Your task to perform on an android device: open device folders in google photos Image 0: 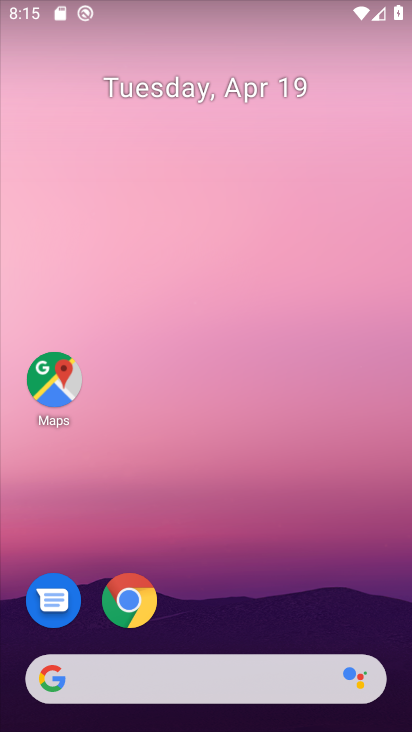
Step 0: drag from (357, 607) to (339, 119)
Your task to perform on an android device: open device folders in google photos Image 1: 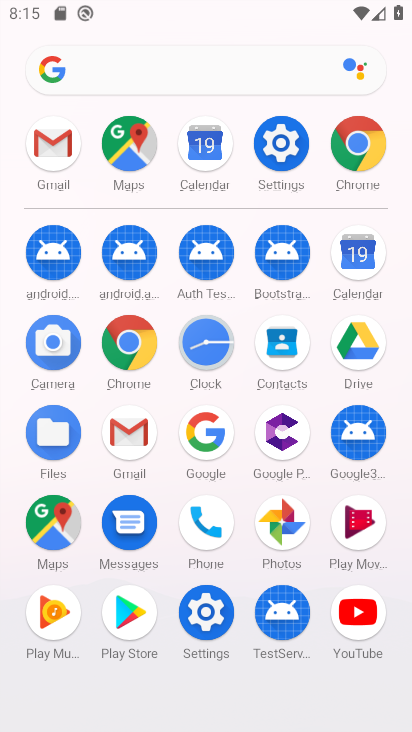
Step 1: click (282, 535)
Your task to perform on an android device: open device folders in google photos Image 2: 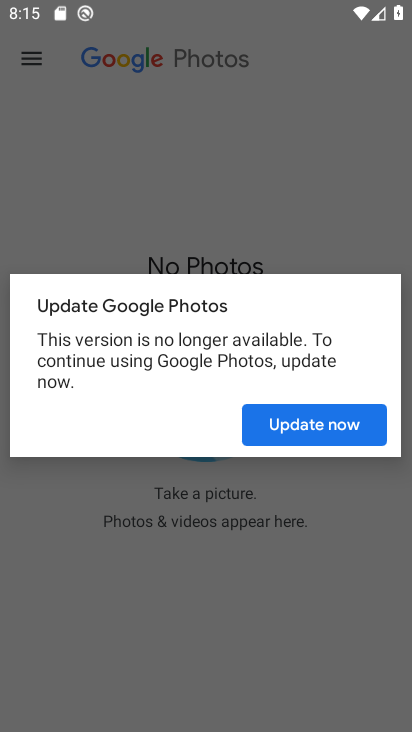
Step 2: click (324, 422)
Your task to perform on an android device: open device folders in google photos Image 3: 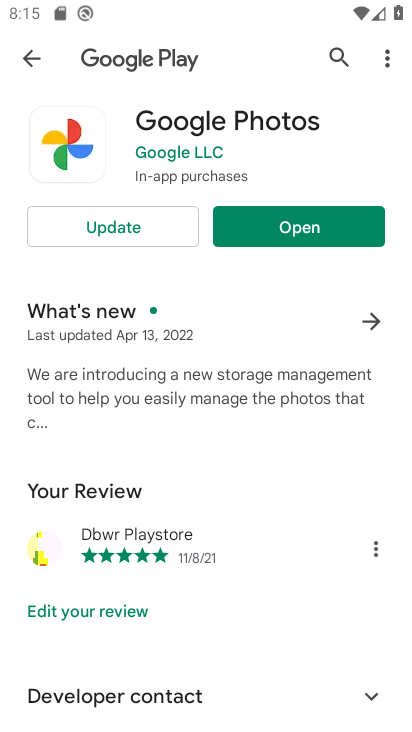
Step 3: click (148, 227)
Your task to perform on an android device: open device folders in google photos Image 4: 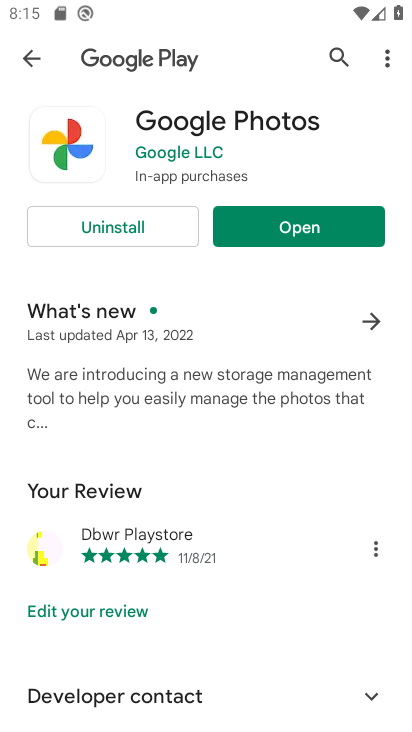
Step 4: click (292, 231)
Your task to perform on an android device: open device folders in google photos Image 5: 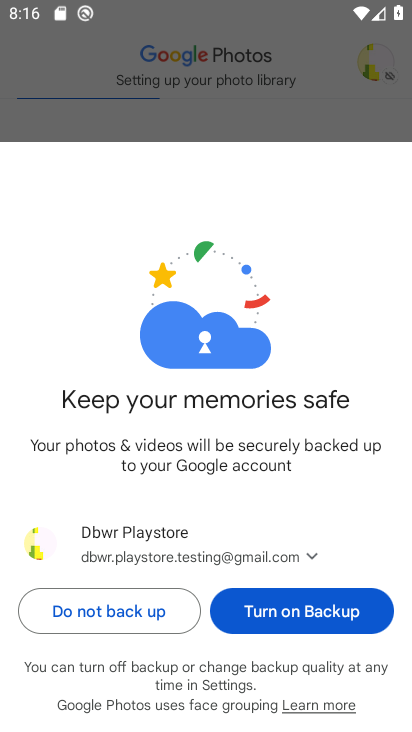
Step 5: click (315, 602)
Your task to perform on an android device: open device folders in google photos Image 6: 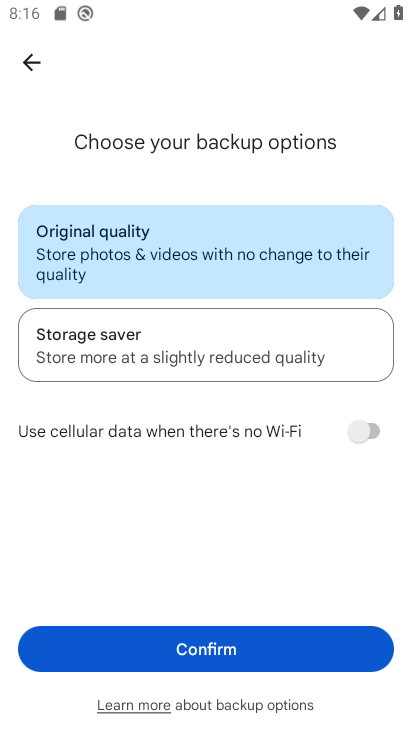
Step 6: click (237, 647)
Your task to perform on an android device: open device folders in google photos Image 7: 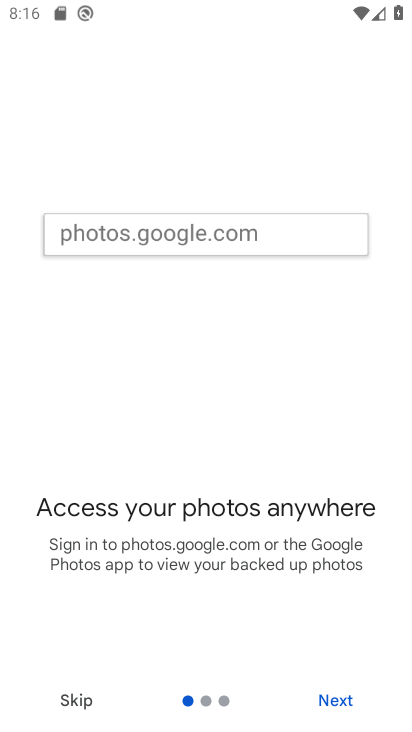
Step 7: click (343, 709)
Your task to perform on an android device: open device folders in google photos Image 8: 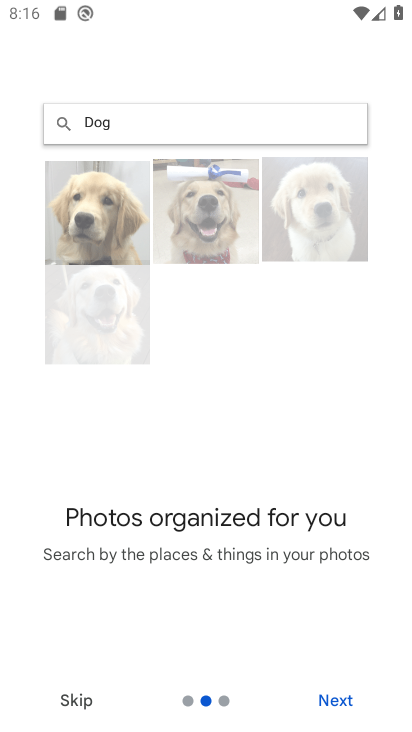
Step 8: click (344, 695)
Your task to perform on an android device: open device folders in google photos Image 9: 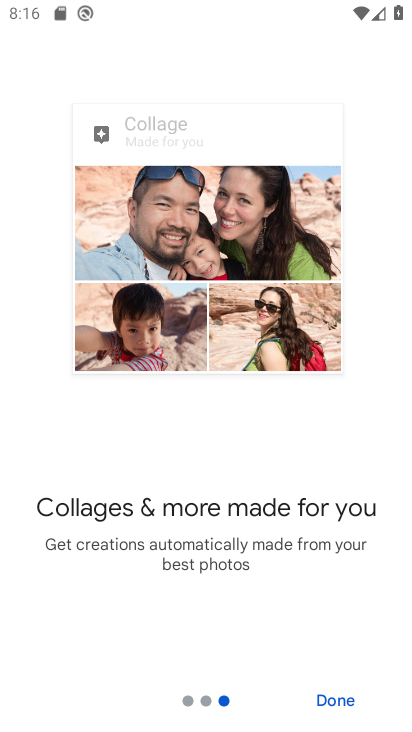
Step 9: click (343, 704)
Your task to perform on an android device: open device folders in google photos Image 10: 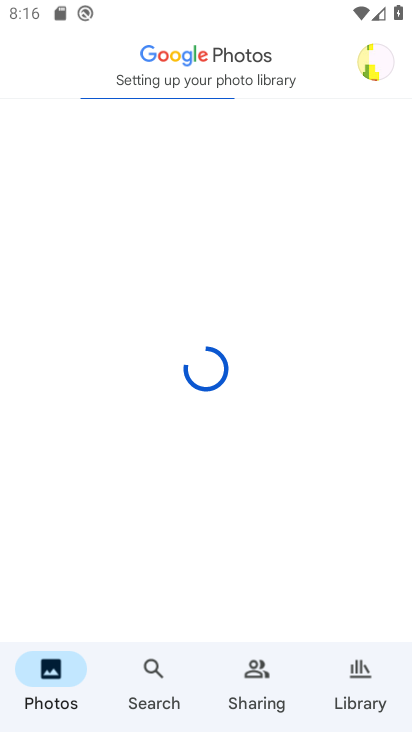
Step 10: click (368, 62)
Your task to perform on an android device: open device folders in google photos Image 11: 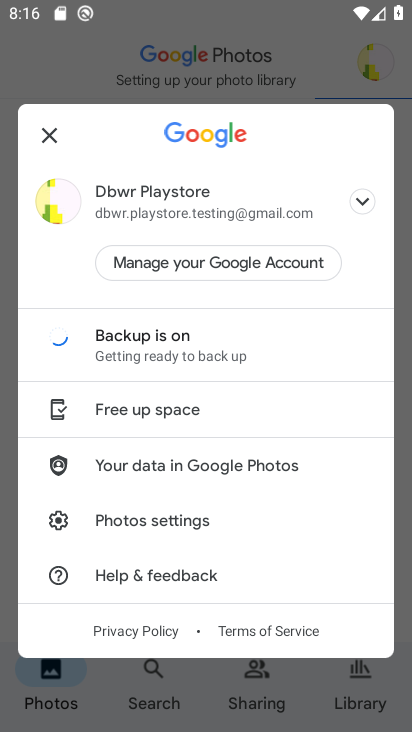
Step 11: task complete